Your task to perform on an android device: Go to Amazon Image 0: 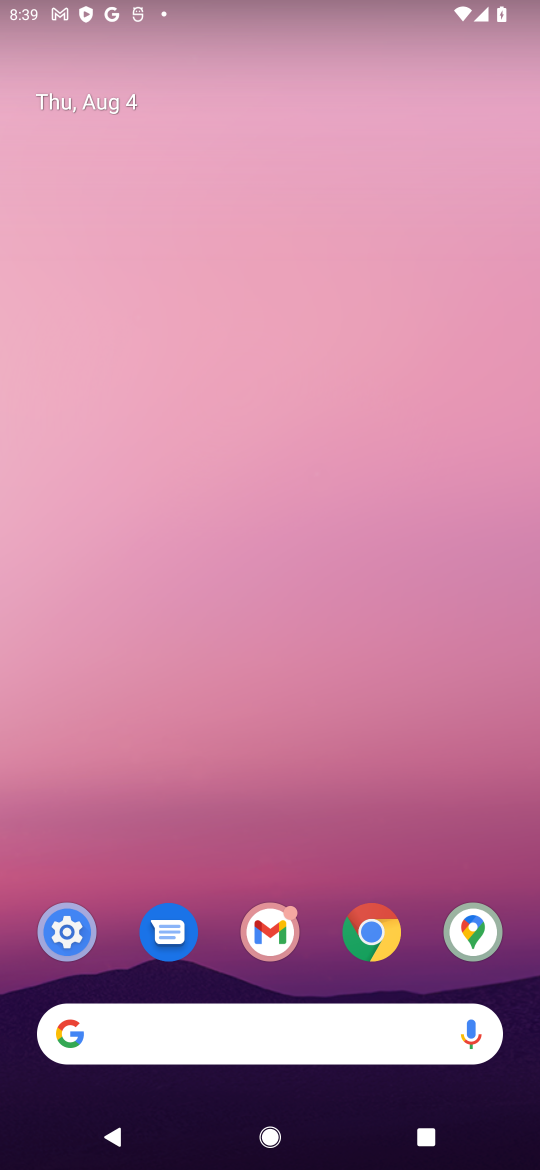
Step 0: click (378, 940)
Your task to perform on an android device: Go to Amazon Image 1: 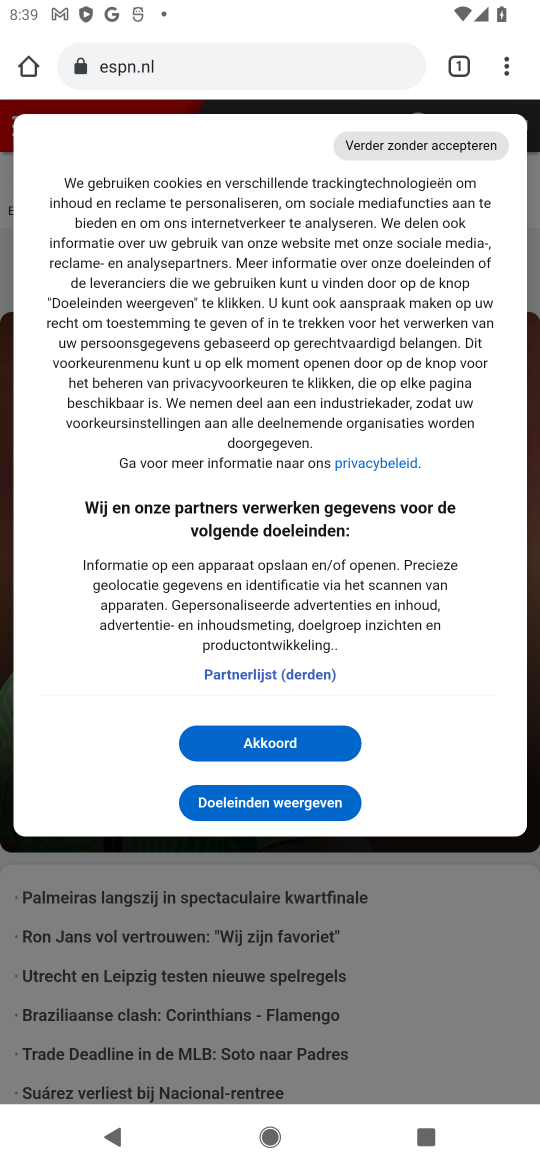
Step 1: press back button
Your task to perform on an android device: Go to Amazon Image 2: 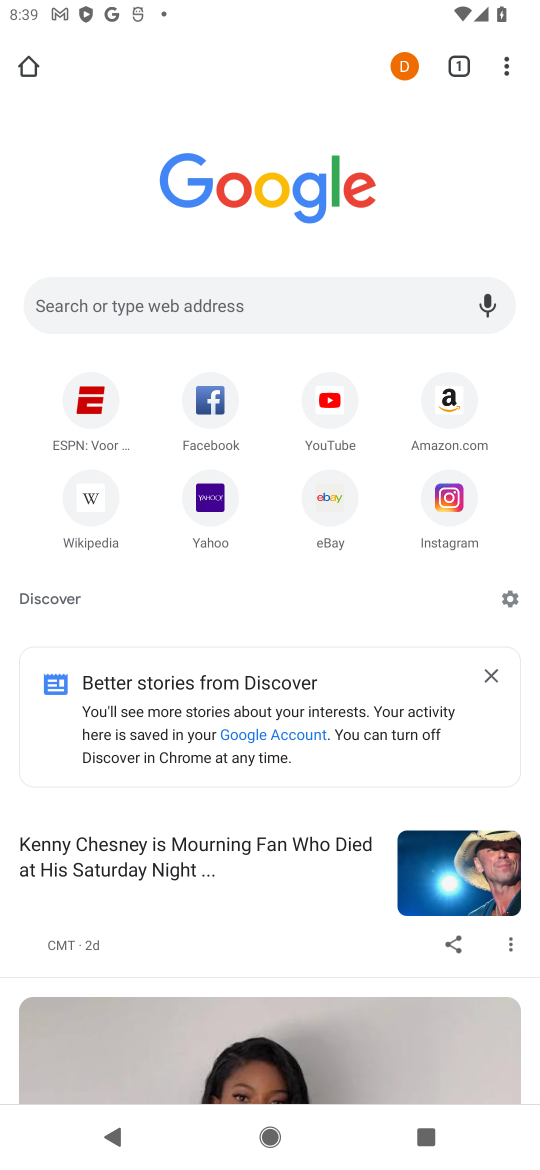
Step 2: click (459, 412)
Your task to perform on an android device: Go to Amazon Image 3: 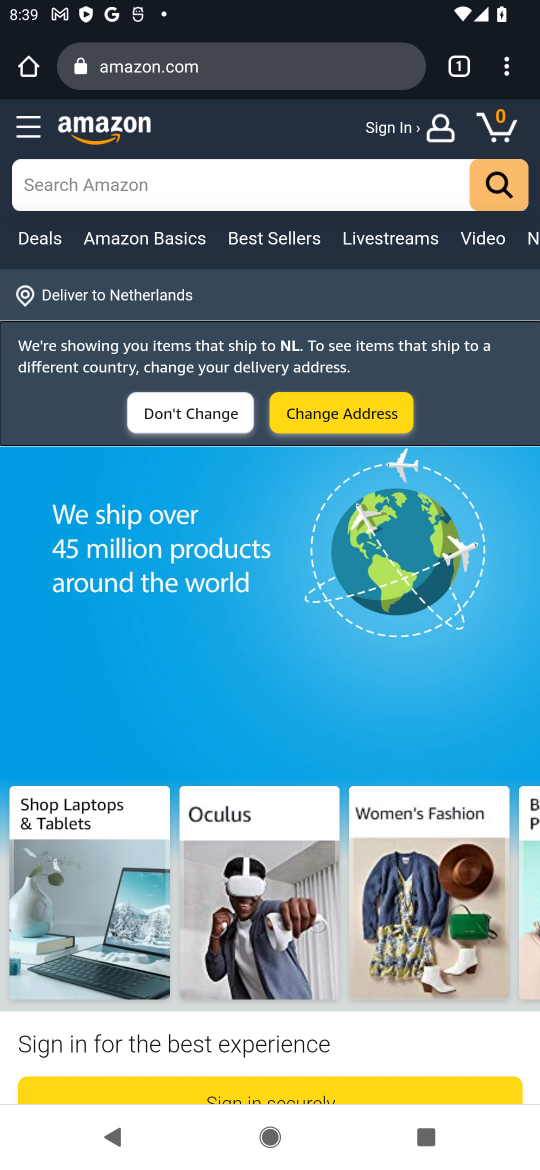
Step 3: task complete